Your task to perform on an android device: Is it going to rain tomorrow? Image 0: 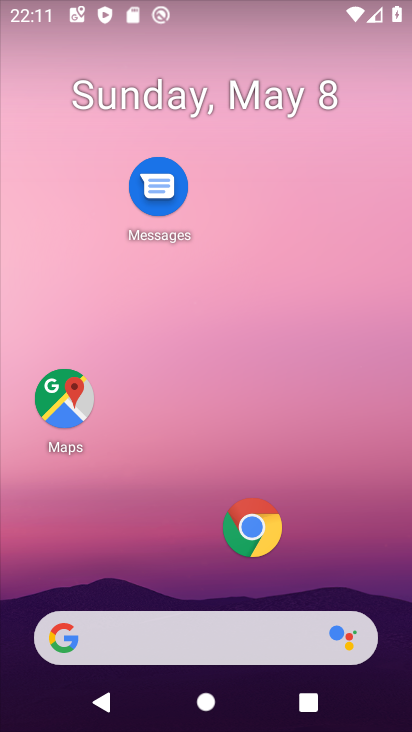
Step 0: drag from (169, 566) to (191, 59)
Your task to perform on an android device: Is it going to rain tomorrow? Image 1: 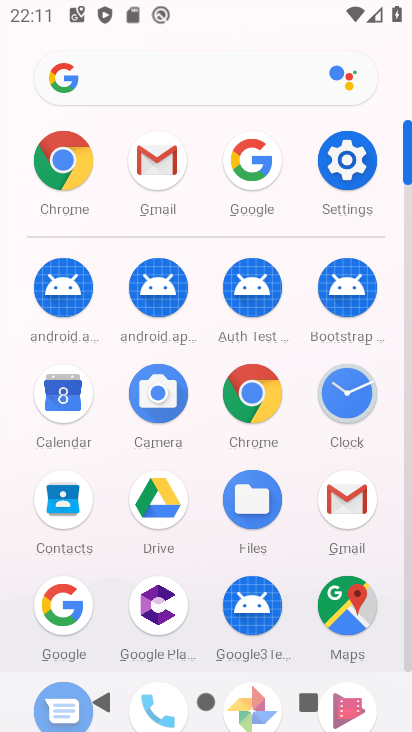
Step 1: click (63, 602)
Your task to perform on an android device: Is it going to rain tomorrow? Image 2: 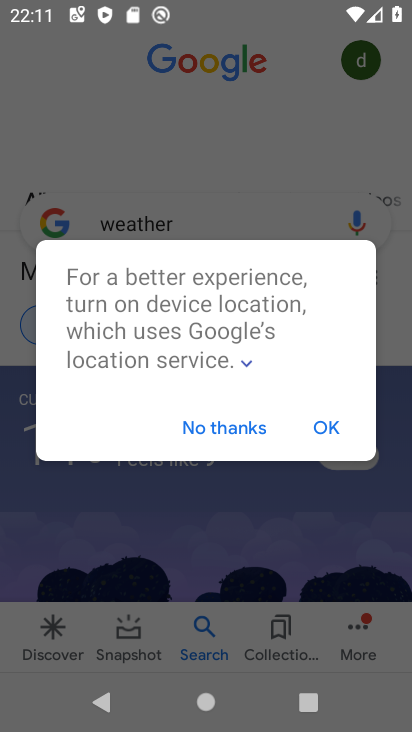
Step 2: click (321, 427)
Your task to perform on an android device: Is it going to rain tomorrow? Image 3: 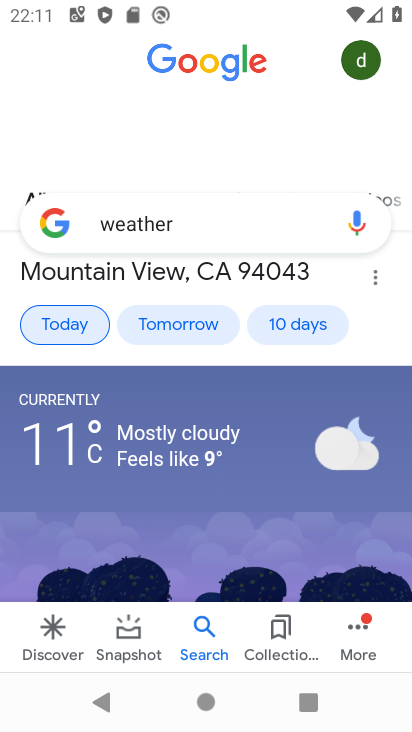
Step 3: click (224, 234)
Your task to perform on an android device: Is it going to rain tomorrow? Image 4: 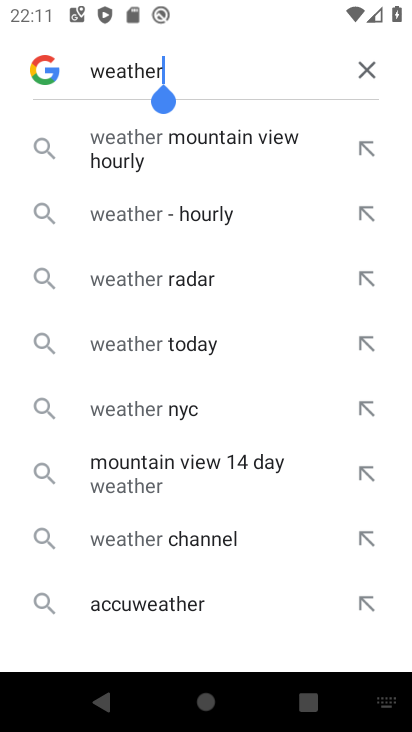
Step 4: click (363, 66)
Your task to perform on an android device: Is it going to rain tomorrow? Image 5: 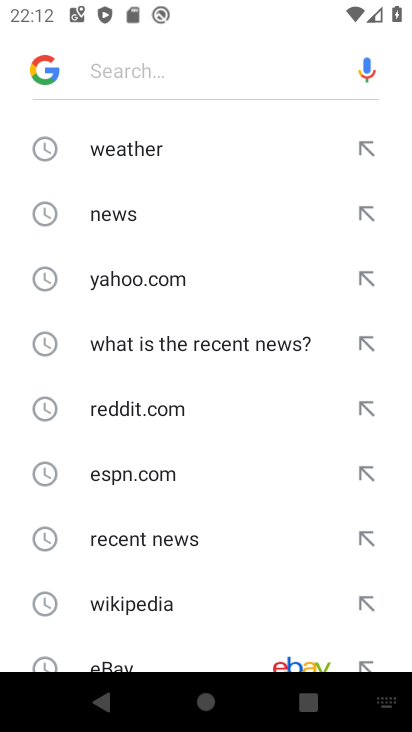
Step 5: type "is it going to rain tomorrow"
Your task to perform on an android device: Is it going to rain tomorrow? Image 6: 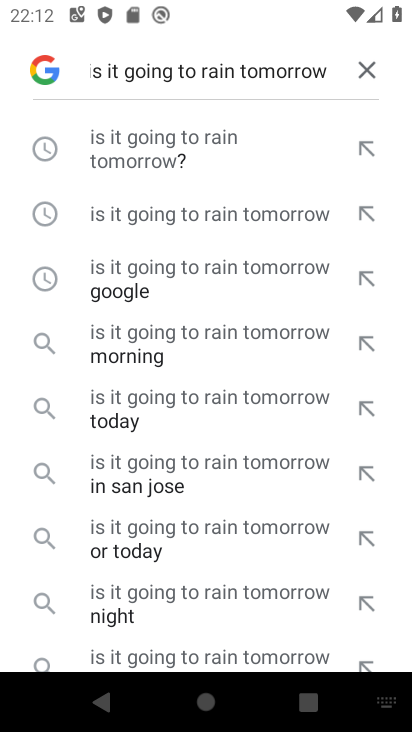
Step 6: click (149, 146)
Your task to perform on an android device: Is it going to rain tomorrow? Image 7: 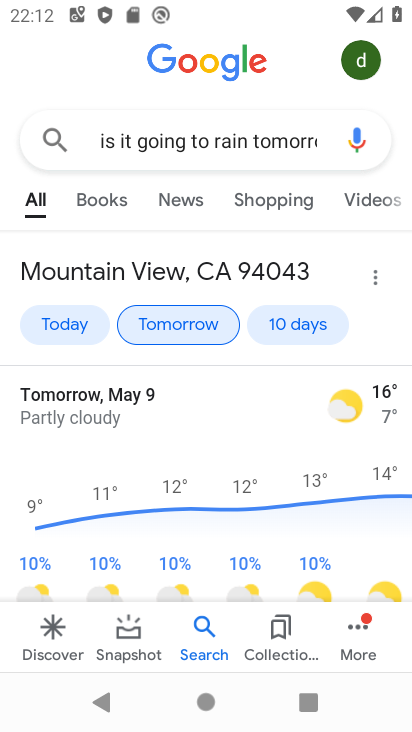
Step 7: task complete